Your task to perform on an android device: turn off priority inbox in the gmail app Image 0: 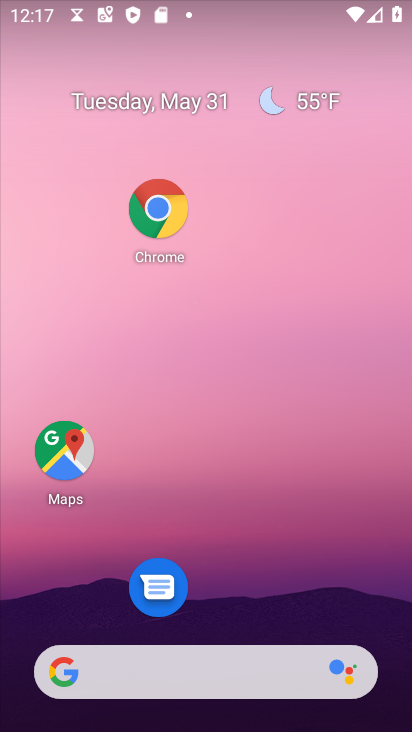
Step 0: drag from (264, 600) to (317, 137)
Your task to perform on an android device: turn off priority inbox in the gmail app Image 1: 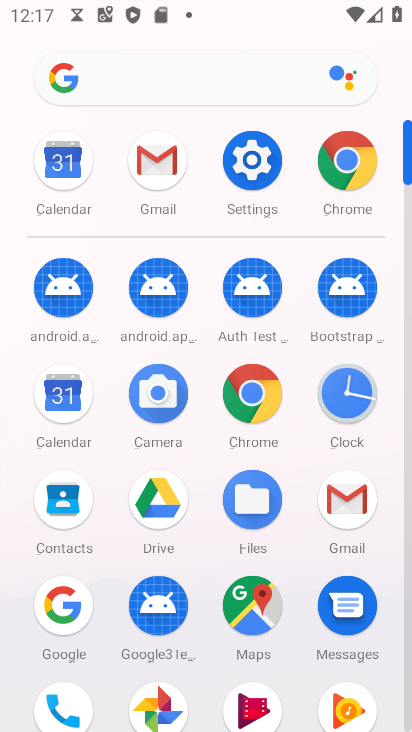
Step 1: click (164, 188)
Your task to perform on an android device: turn off priority inbox in the gmail app Image 2: 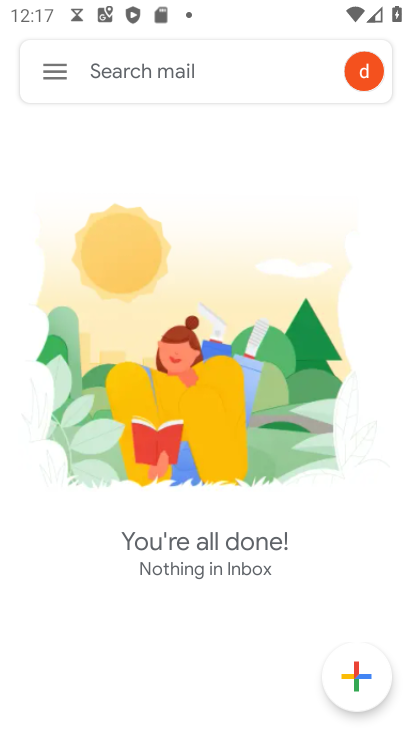
Step 2: click (64, 75)
Your task to perform on an android device: turn off priority inbox in the gmail app Image 3: 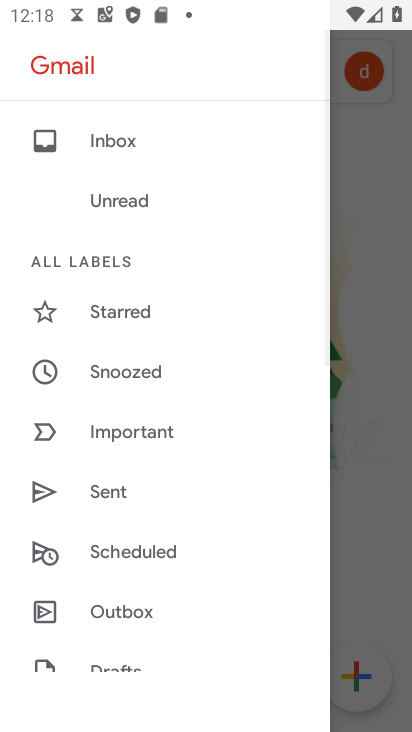
Step 3: drag from (169, 645) to (180, 143)
Your task to perform on an android device: turn off priority inbox in the gmail app Image 4: 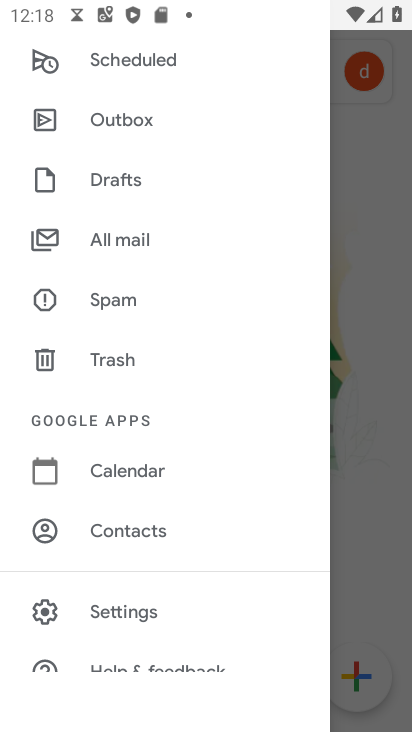
Step 4: click (130, 605)
Your task to perform on an android device: turn off priority inbox in the gmail app Image 5: 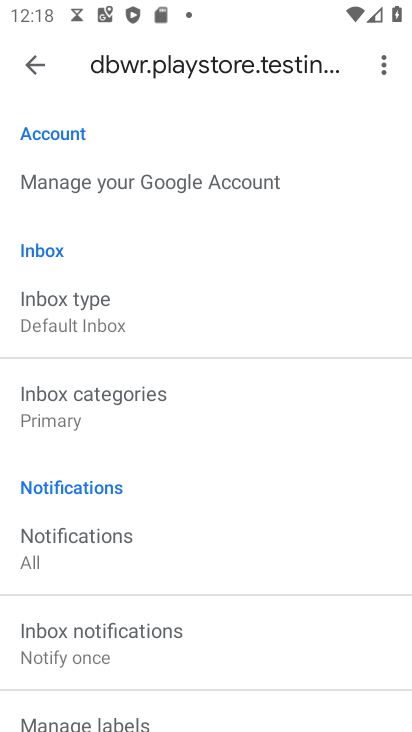
Step 5: click (106, 309)
Your task to perform on an android device: turn off priority inbox in the gmail app Image 6: 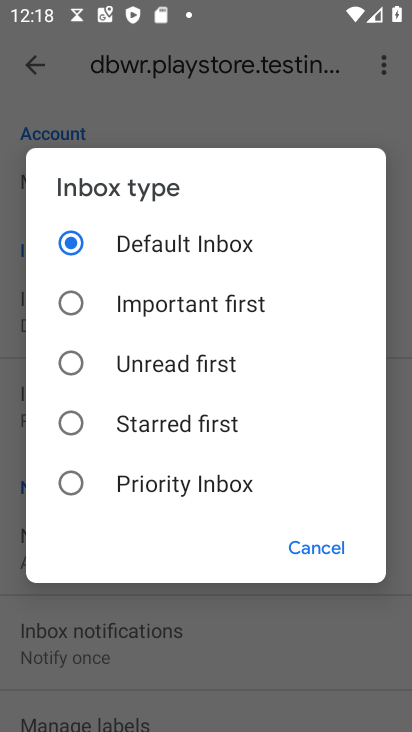
Step 6: task complete